Your task to perform on an android device: Open Google Maps and go to "Timeline" Image 0: 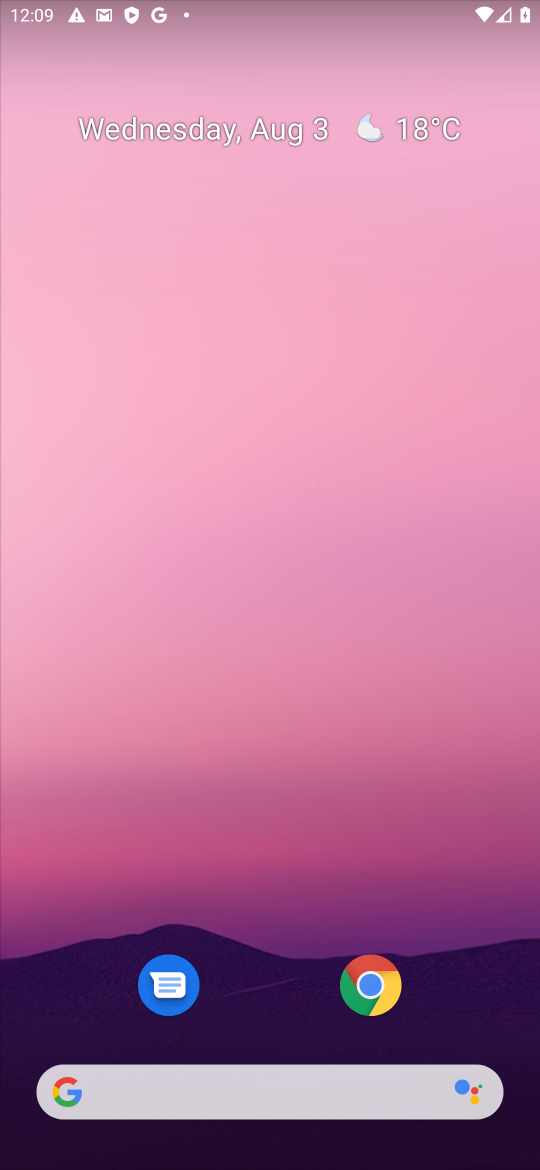
Step 0: drag from (262, 1038) to (273, 162)
Your task to perform on an android device: Open Google Maps and go to "Timeline" Image 1: 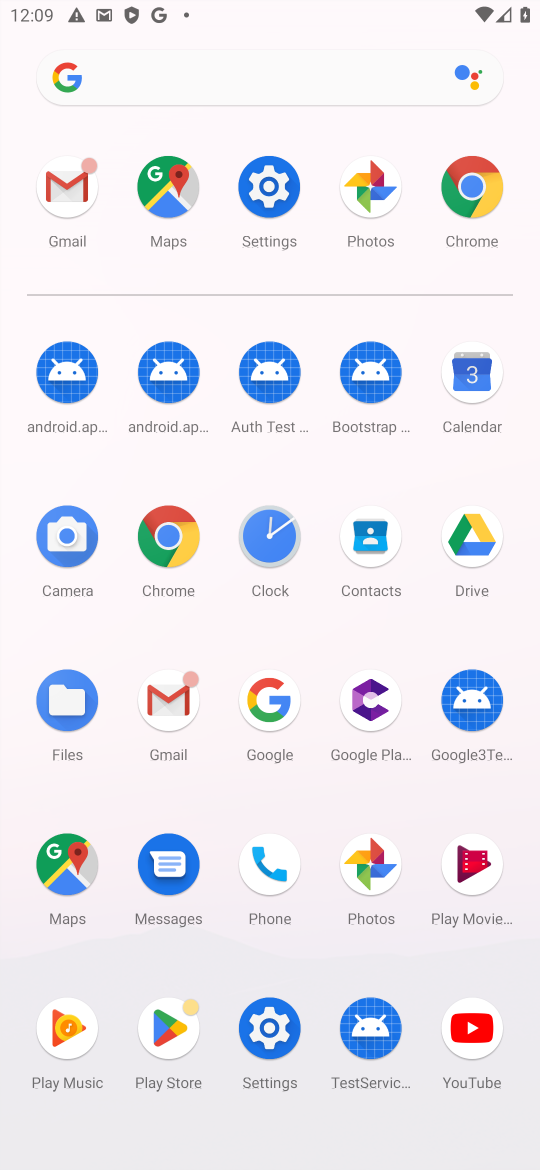
Step 1: click (82, 878)
Your task to perform on an android device: Open Google Maps and go to "Timeline" Image 2: 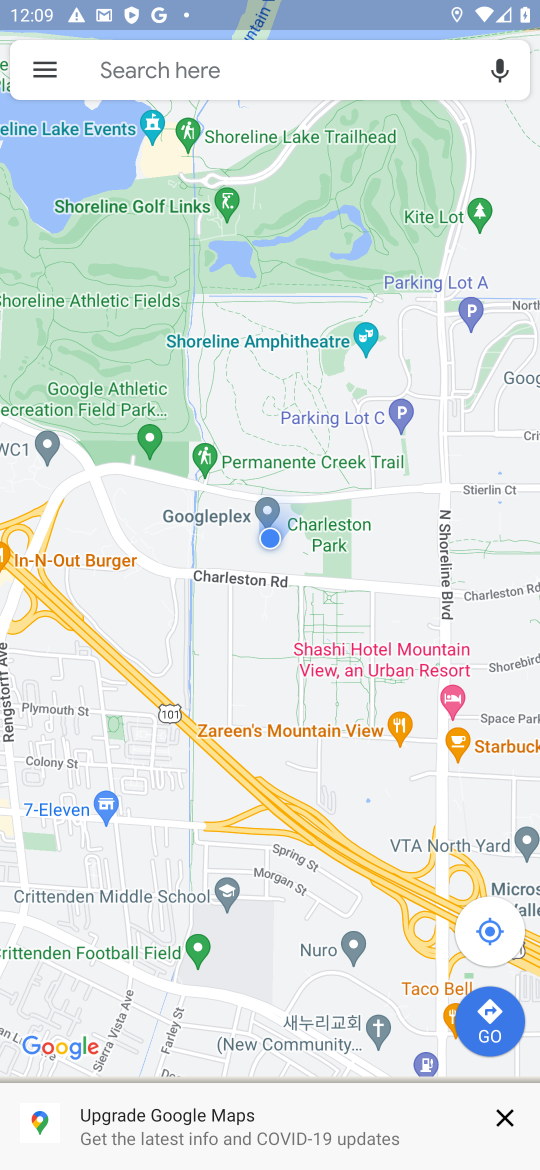
Step 2: click (45, 89)
Your task to perform on an android device: Open Google Maps and go to "Timeline" Image 3: 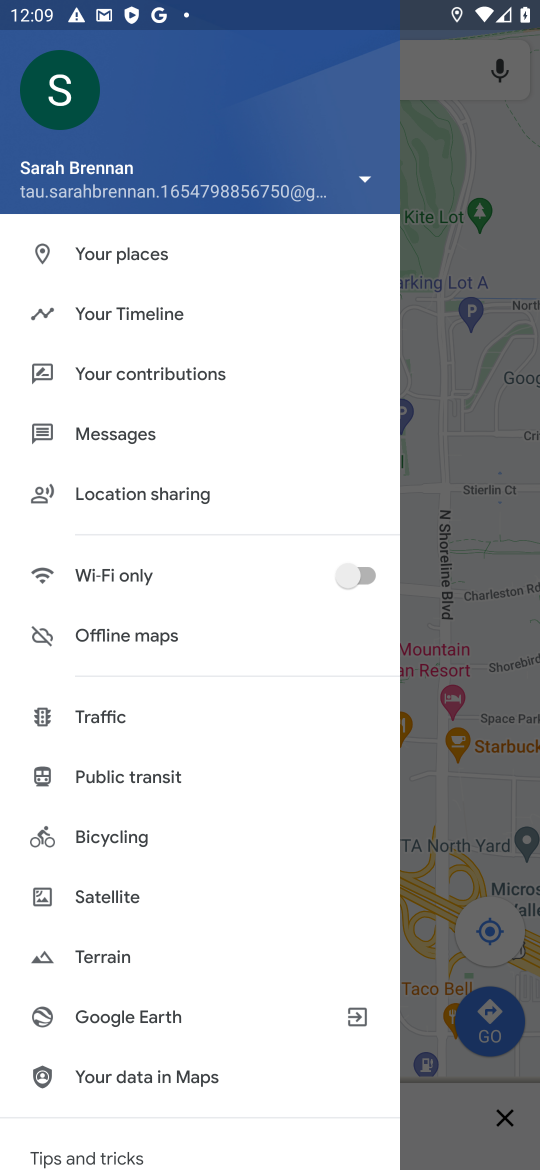
Step 3: click (175, 333)
Your task to perform on an android device: Open Google Maps and go to "Timeline" Image 4: 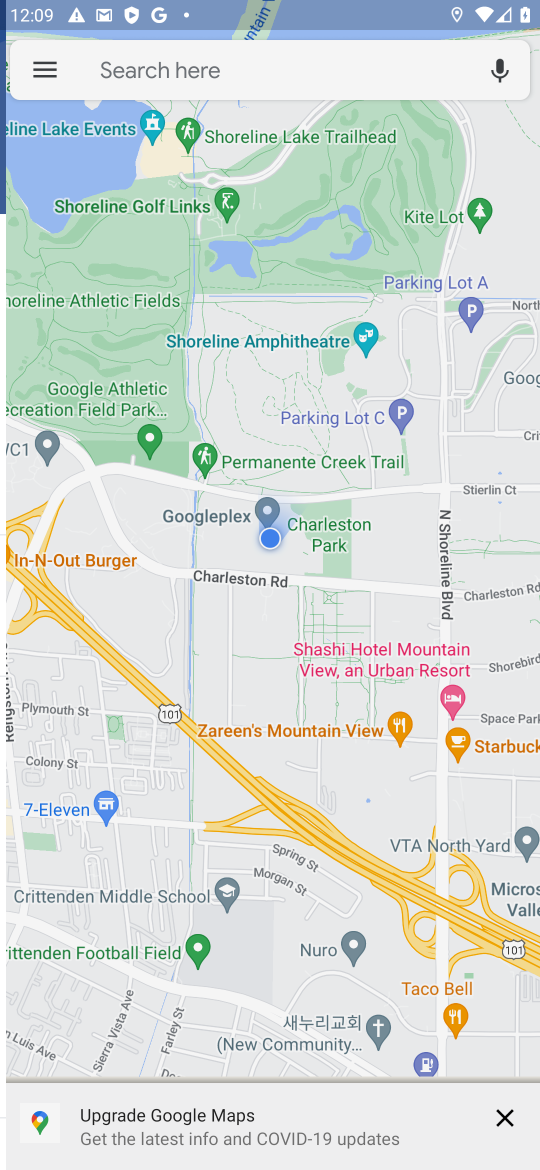
Step 4: task complete